Your task to perform on an android device: Open Google Chrome Image 0: 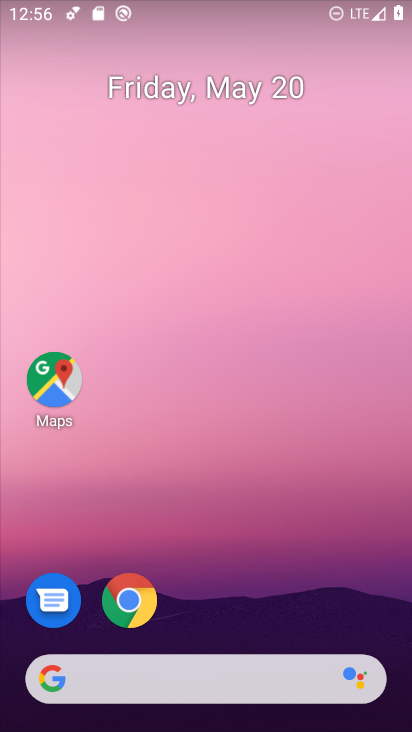
Step 0: click (130, 609)
Your task to perform on an android device: Open Google Chrome Image 1: 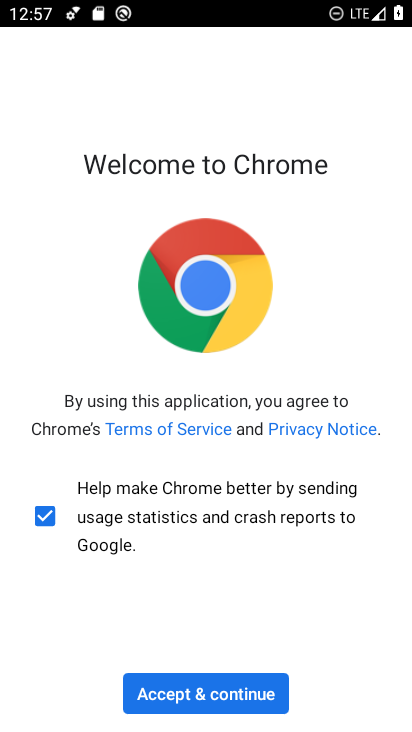
Step 1: click (166, 675)
Your task to perform on an android device: Open Google Chrome Image 2: 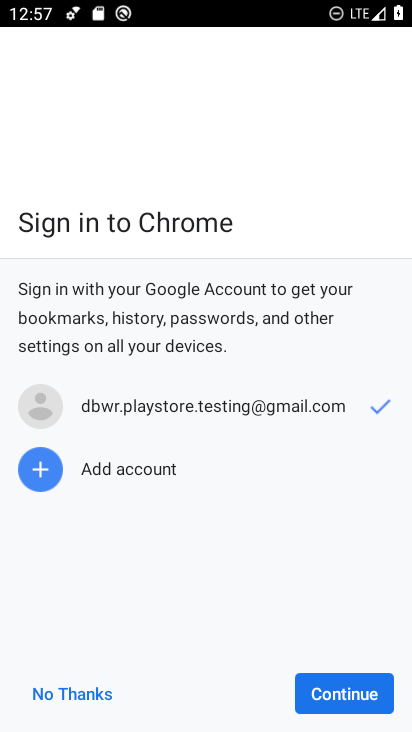
Step 2: click (321, 686)
Your task to perform on an android device: Open Google Chrome Image 3: 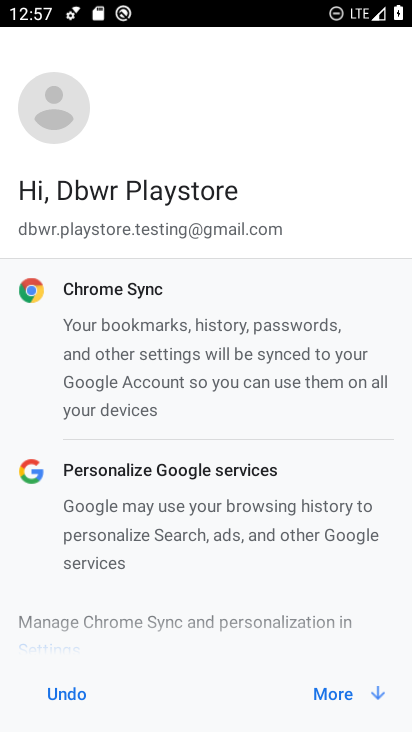
Step 3: click (321, 686)
Your task to perform on an android device: Open Google Chrome Image 4: 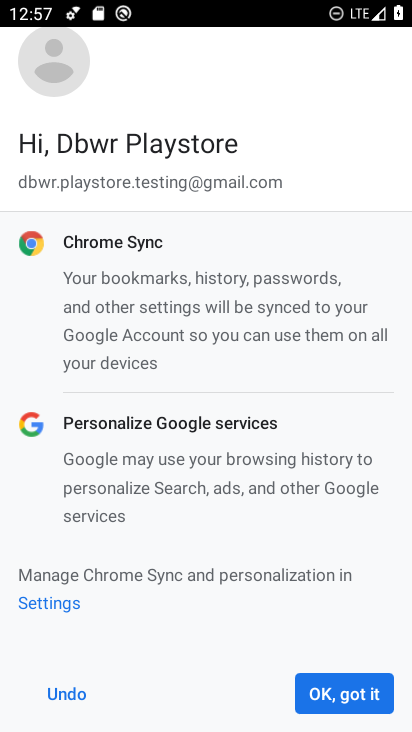
Step 4: click (321, 686)
Your task to perform on an android device: Open Google Chrome Image 5: 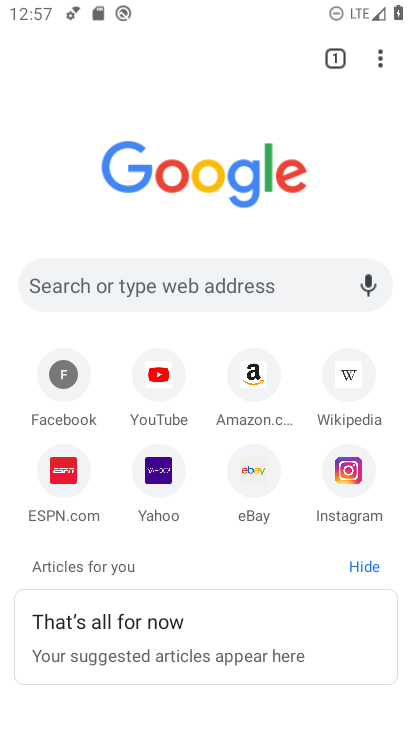
Step 5: task complete